Your task to perform on an android device: Open calendar and show me the first week of next month Image 0: 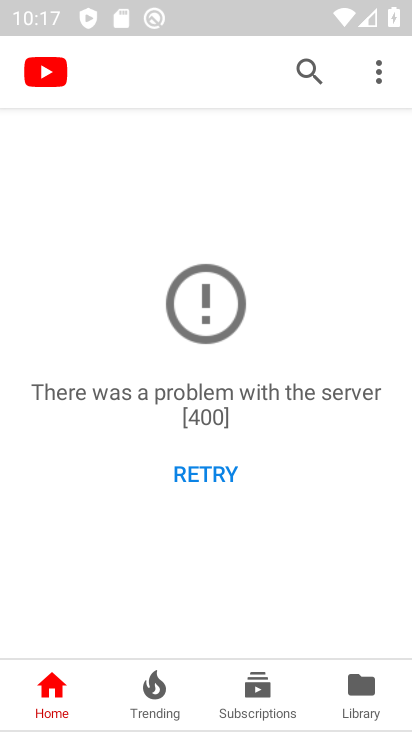
Step 0: press back button
Your task to perform on an android device: Open calendar and show me the first week of next month Image 1: 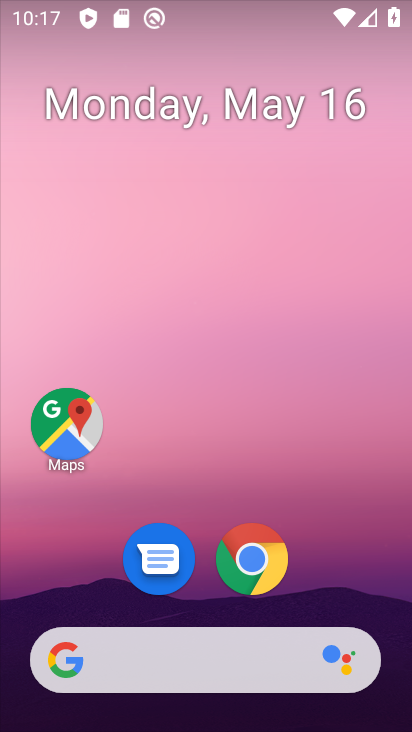
Step 1: drag from (258, 198) to (211, 4)
Your task to perform on an android device: Open calendar and show me the first week of next month Image 2: 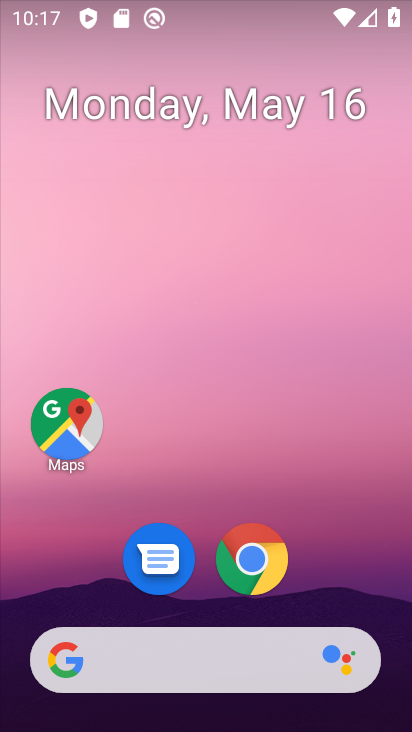
Step 2: drag from (330, 567) to (245, 38)
Your task to perform on an android device: Open calendar and show me the first week of next month Image 3: 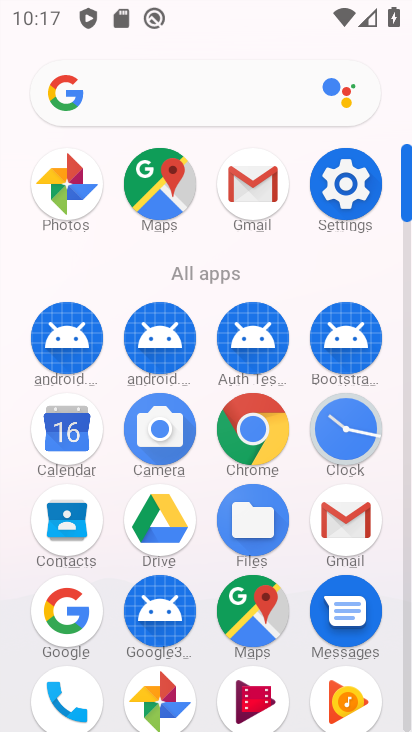
Step 3: drag from (7, 530) to (16, 226)
Your task to perform on an android device: Open calendar and show me the first week of next month Image 4: 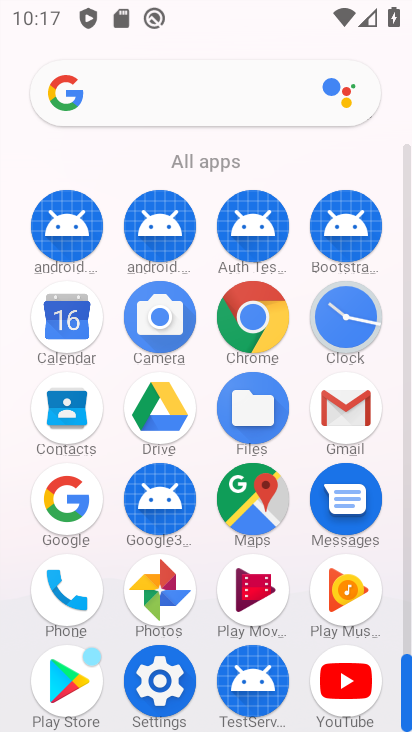
Step 4: click (68, 314)
Your task to perform on an android device: Open calendar and show me the first week of next month Image 5: 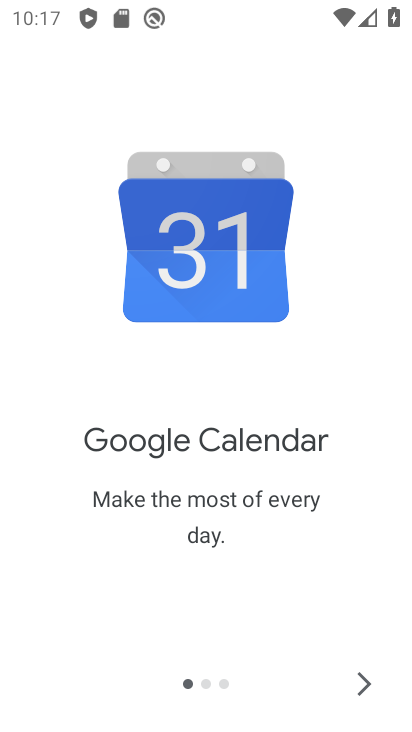
Step 5: click (371, 681)
Your task to perform on an android device: Open calendar and show me the first week of next month Image 6: 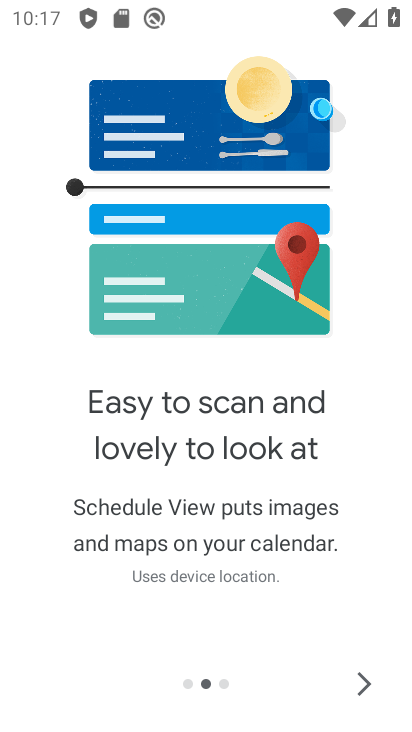
Step 6: click (356, 680)
Your task to perform on an android device: Open calendar and show me the first week of next month Image 7: 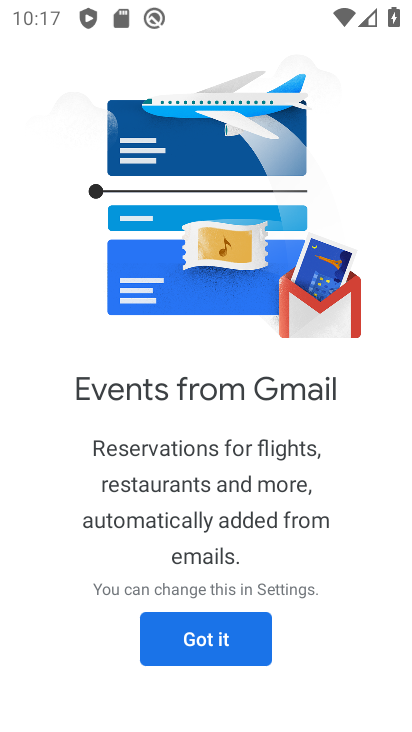
Step 7: click (234, 639)
Your task to perform on an android device: Open calendar and show me the first week of next month Image 8: 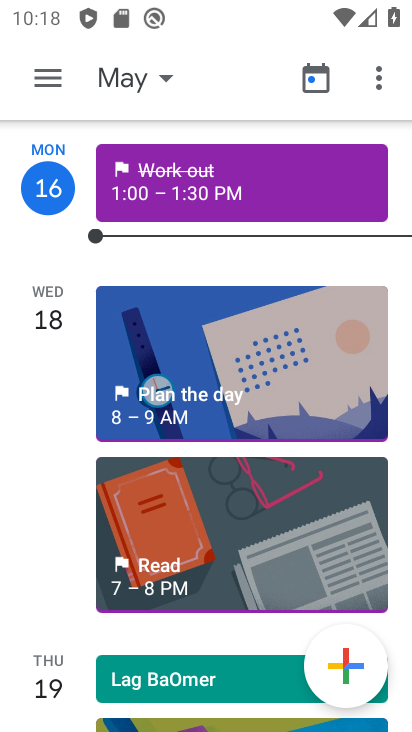
Step 8: click (127, 78)
Your task to perform on an android device: Open calendar and show me the first week of next month Image 9: 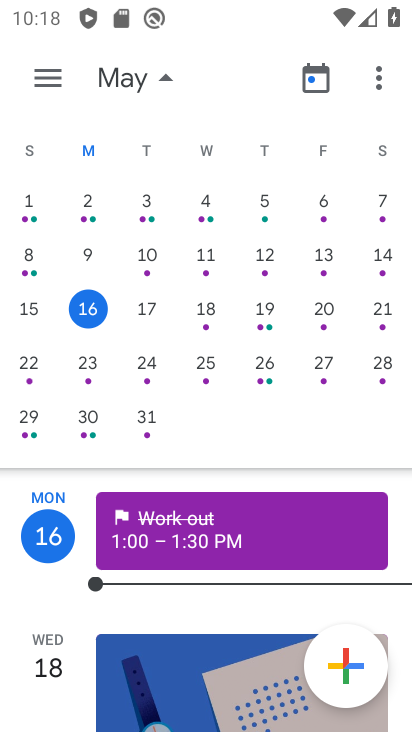
Step 9: drag from (394, 281) to (2, 235)
Your task to perform on an android device: Open calendar and show me the first week of next month Image 10: 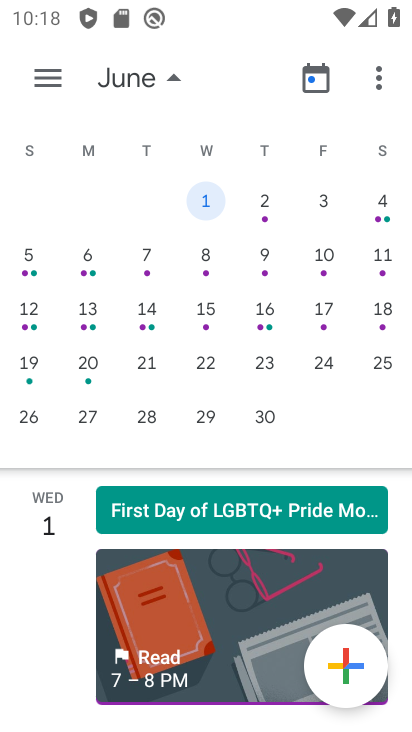
Step 10: click (199, 200)
Your task to perform on an android device: Open calendar and show me the first week of next month Image 11: 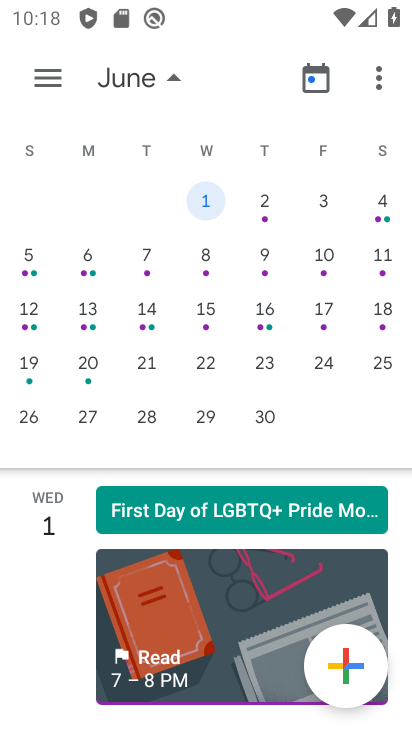
Step 11: click (208, 197)
Your task to perform on an android device: Open calendar and show me the first week of next month Image 12: 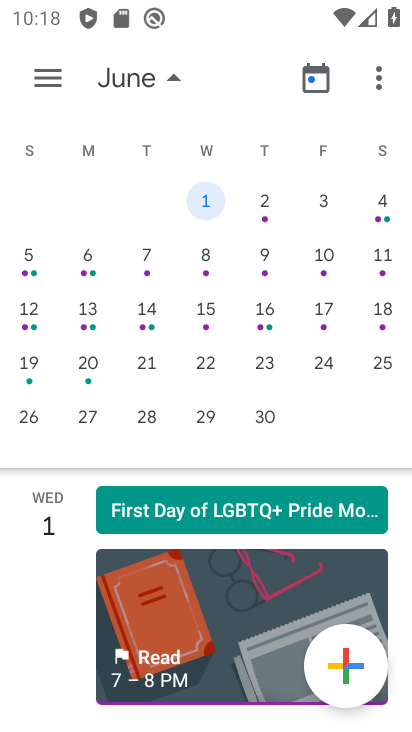
Step 12: click (31, 64)
Your task to perform on an android device: Open calendar and show me the first week of next month Image 13: 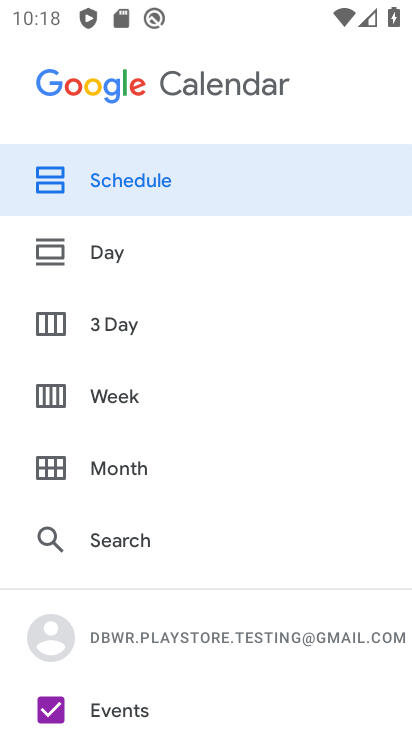
Step 13: click (147, 393)
Your task to perform on an android device: Open calendar and show me the first week of next month Image 14: 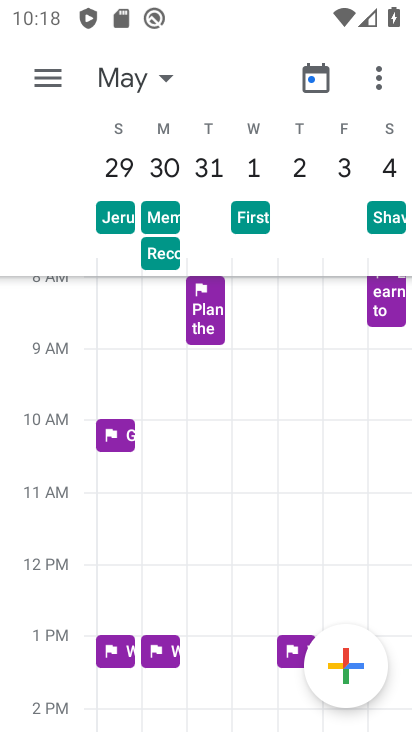
Step 14: task complete